Your task to perform on an android device: Open Chrome and go to the settings page Image 0: 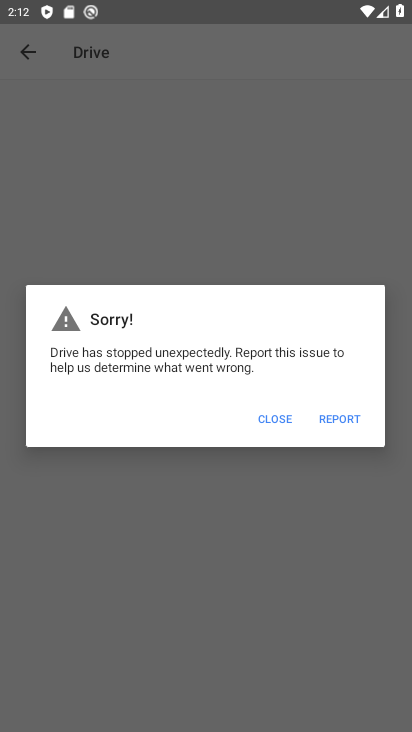
Step 0: press home button
Your task to perform on an android device: Open Chrome and go to the settings page Image 1: 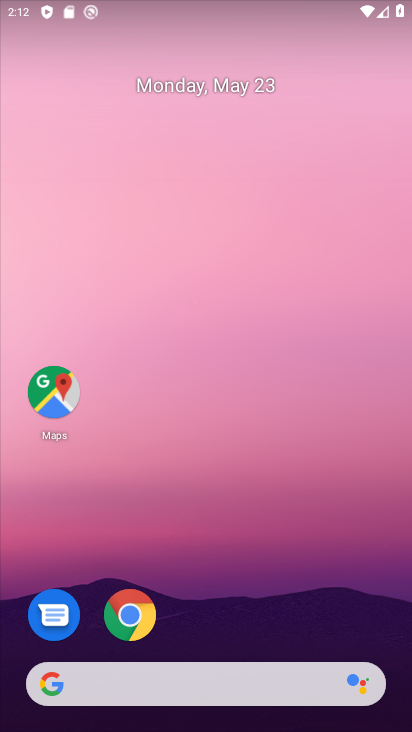
Step 1: click (132, 611)
Your task to perform on an android device: Open Chrome and go to the settings page Image 2: 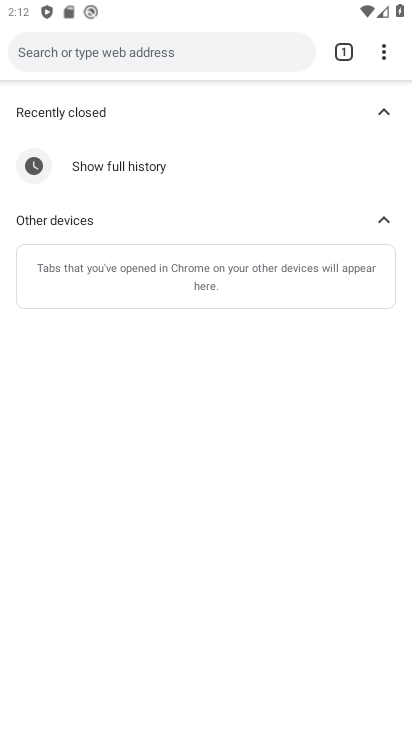
Step 2: click (382, 51)
Your task to perform on an android device: Open Chrome and go to the settings page Image 3: 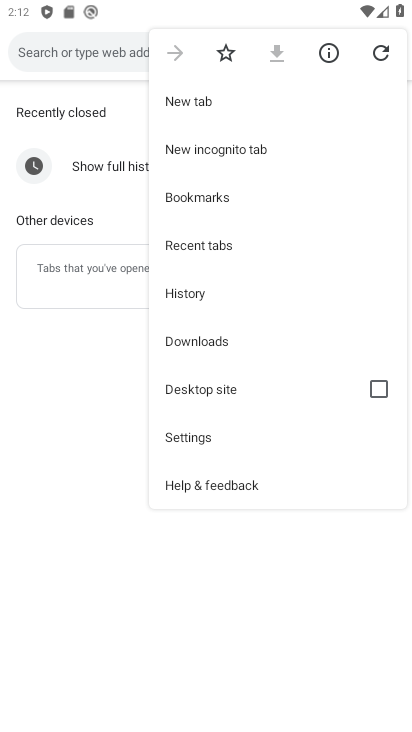
Step 3: click (168, 435)
Your task to perform on an android device: Open Chrome and go to the settings page Image 4: 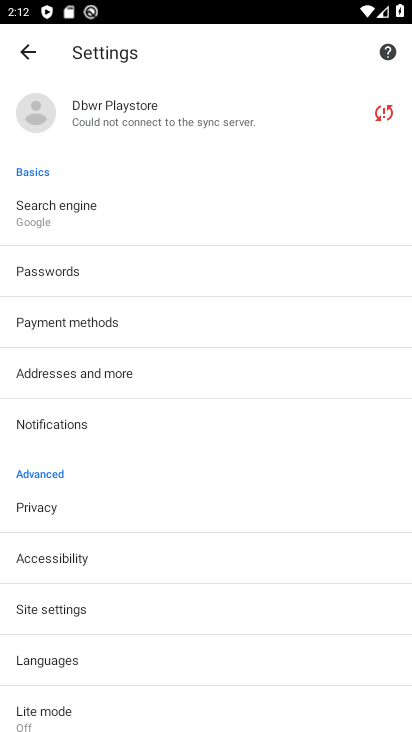
Step 4: task complete